Your task to perform on an android device: What's the news this week? Image 0: 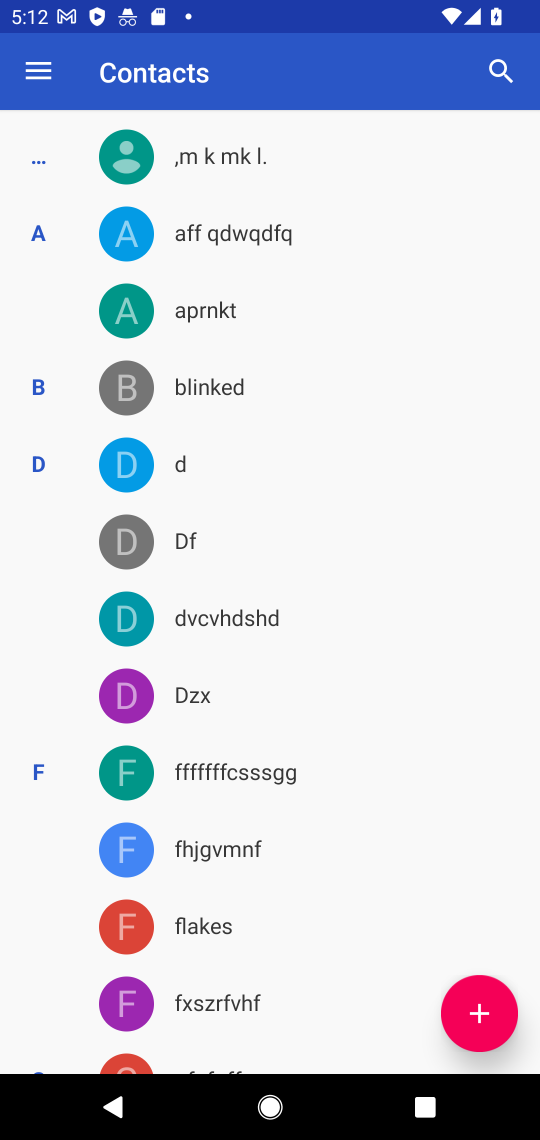
Step 0: press home button
Your task to perform on an android device: What's the news this week? Image 1: 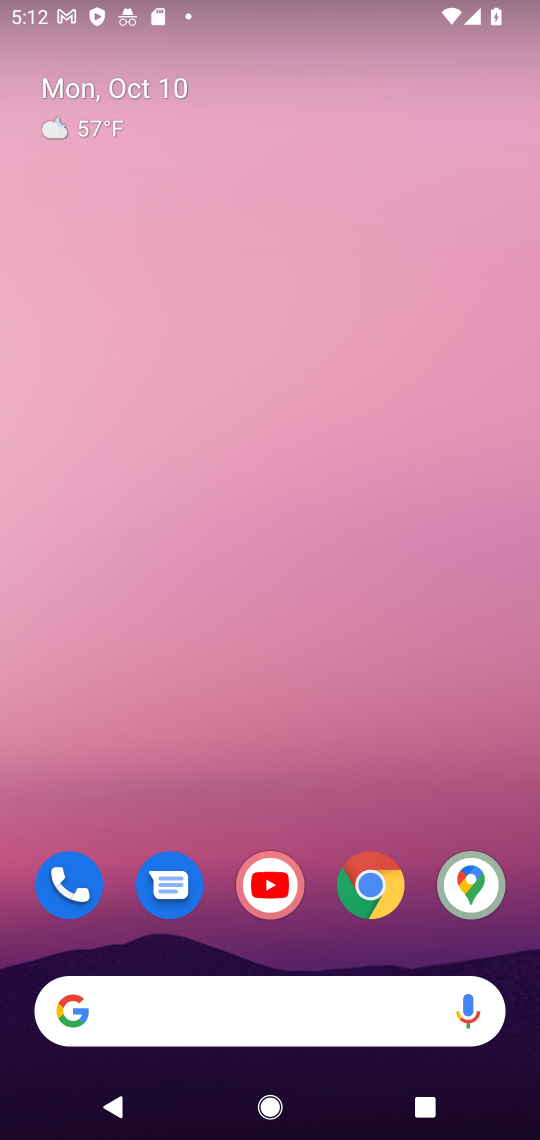
Step 1: click (158, 1022)
Your task to perform on an android device: What's the news this week? Image 2: 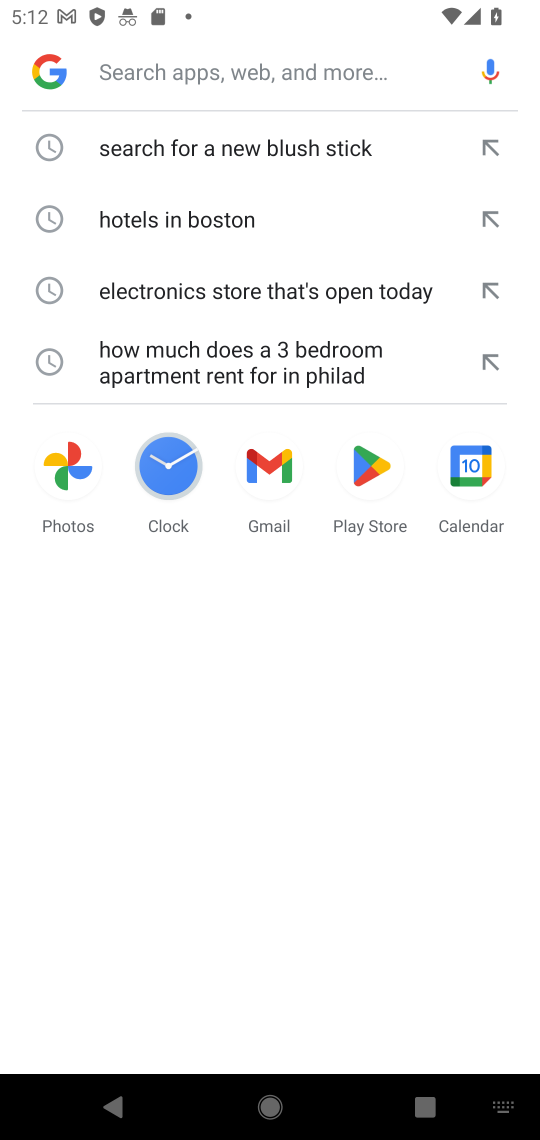
Step 2: type "What's the news this week?"
Your task to perform on an android device: What's the news this week? Image 3: 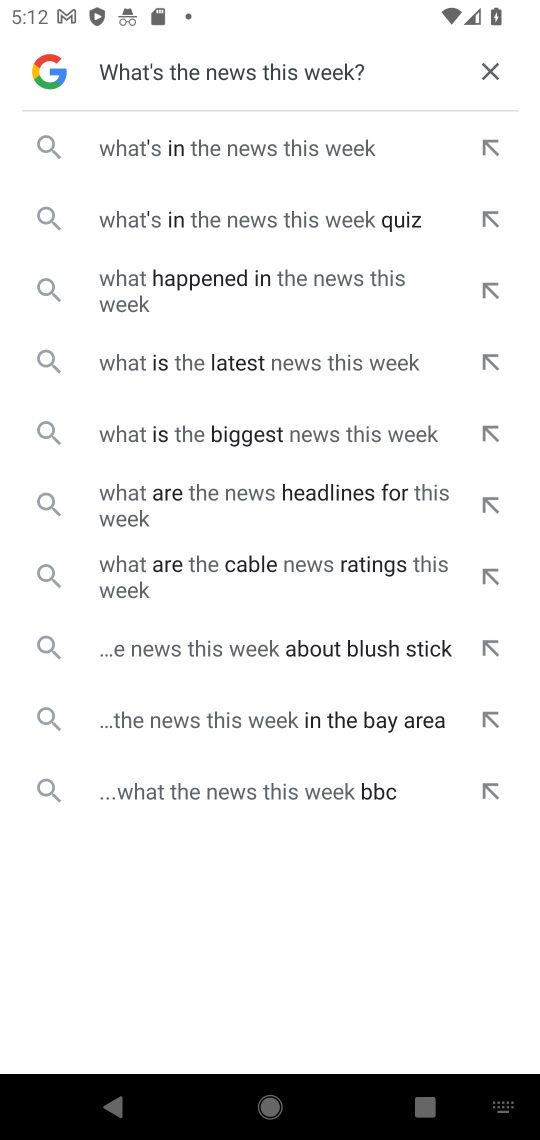
Step 3: click (233, 146)
Your task to perform on an android device: What's the news this week? Image 4: 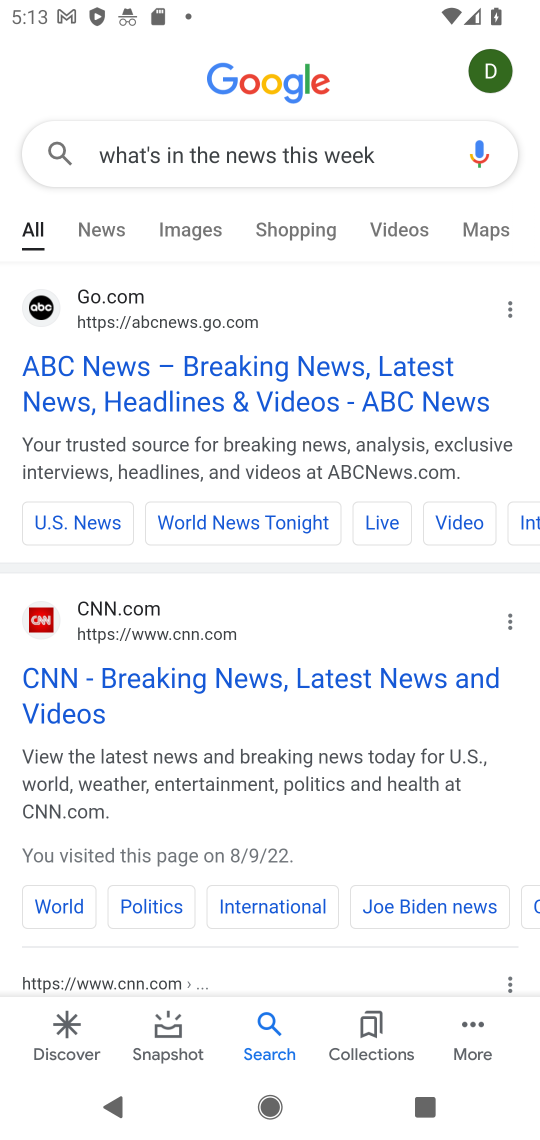
Step 4: click (150, 368)
Your task to perform on an android device: What's the news this week? Image 5: 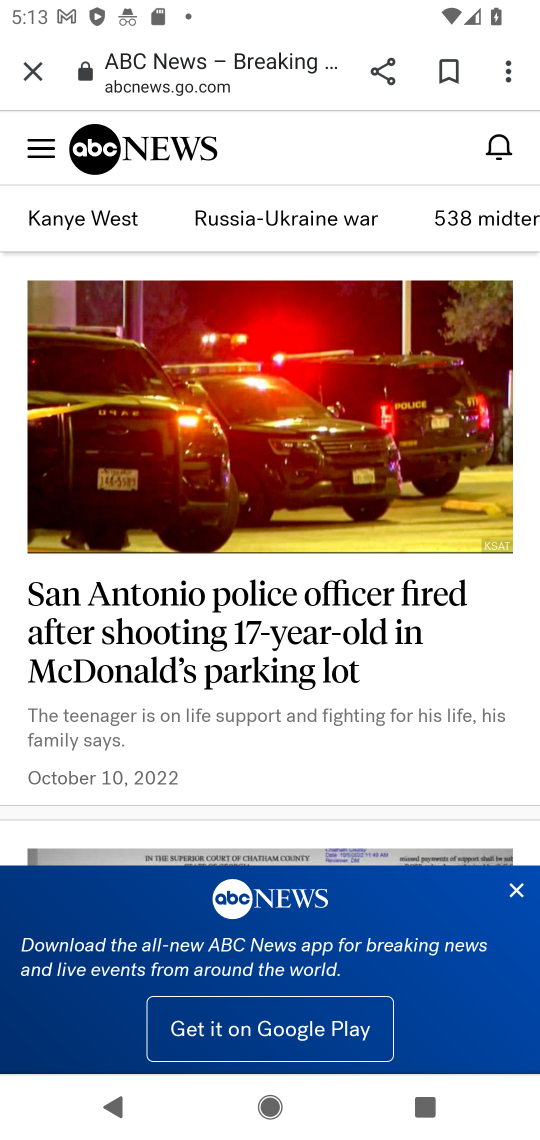
Step 5: click (519, 898)
Your task to perform on an android device: What's the news this week? Image 6: 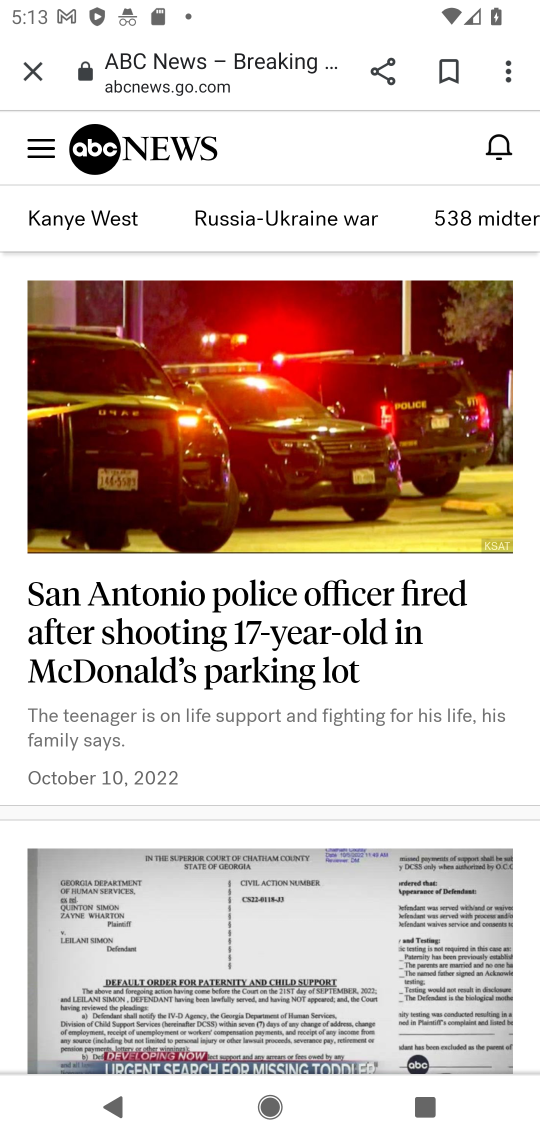
Step 6: task complete